Your task to perform on an android device: toggle notification dots Image 0: 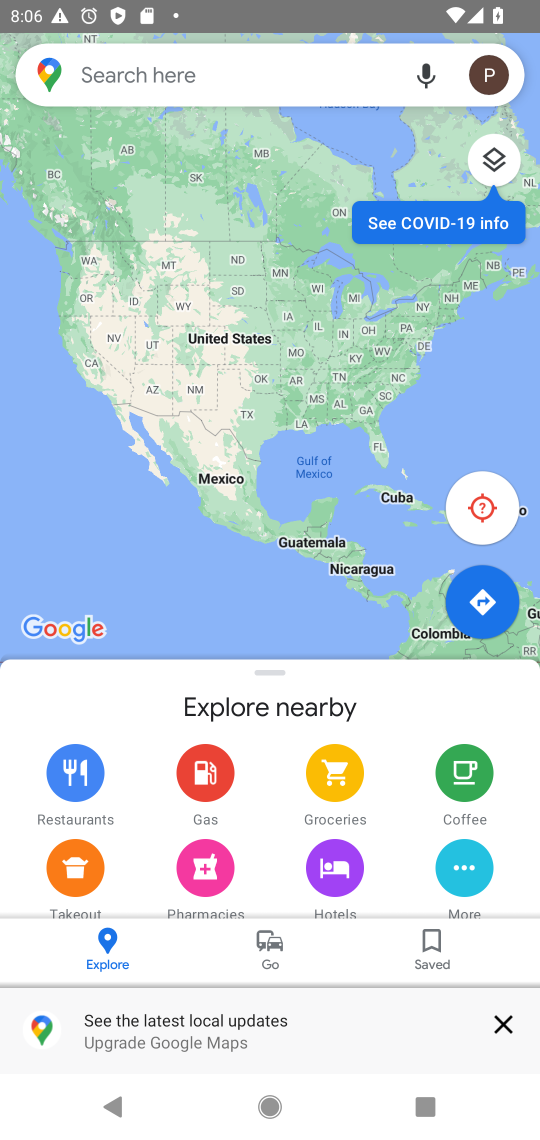
Step 0: press home button
Your task to perform on an android device: toggle notification dots Image 1: 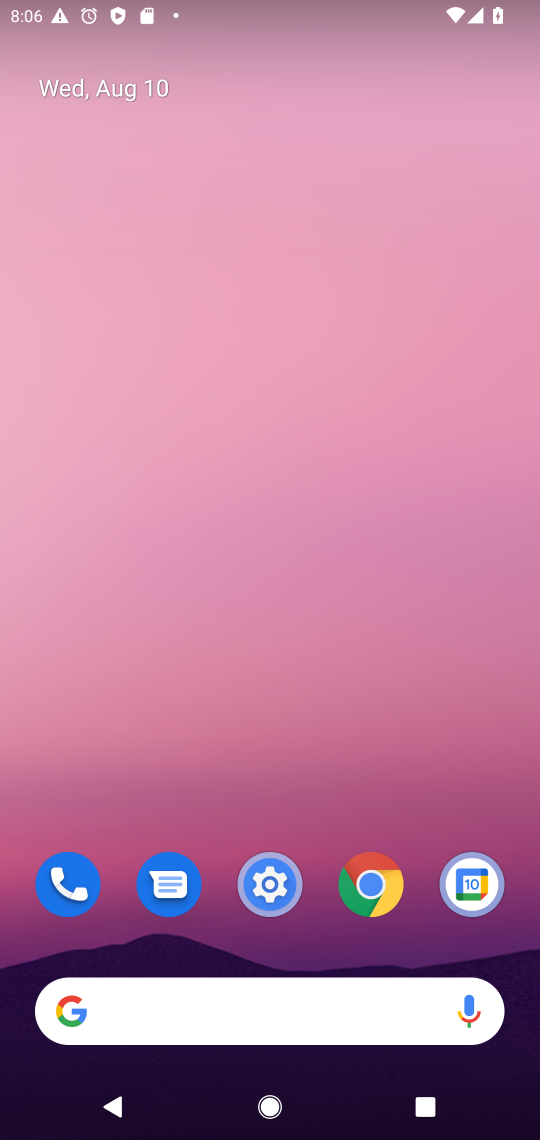
Step 1: click (256, 879)
Your task to perform on an android device: toggle notification dots Image 2: 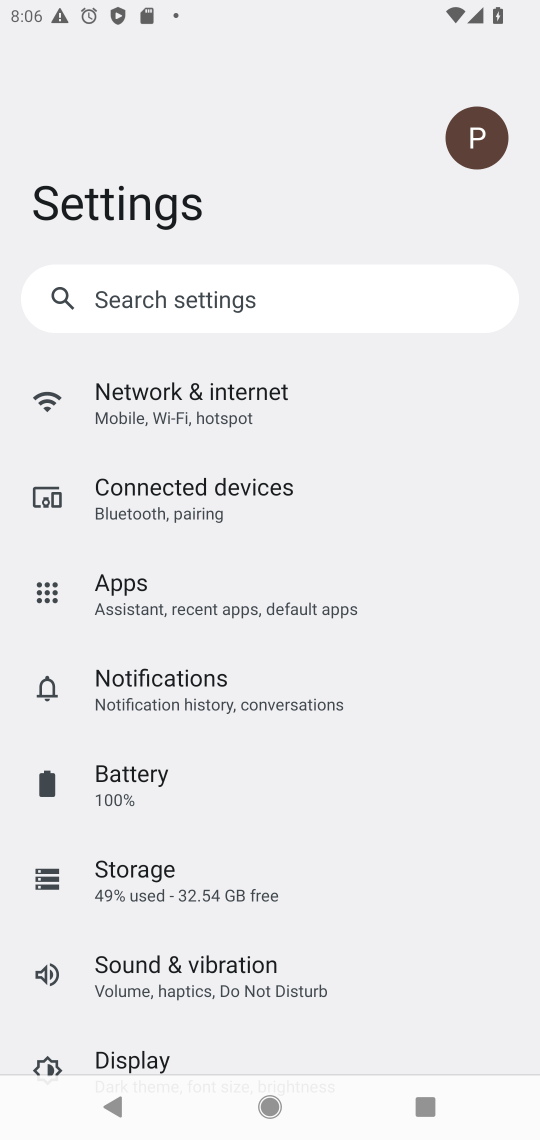
Step 2: click (141, 687)
Your task to perform on an android device: toggle notification dots Image 3: 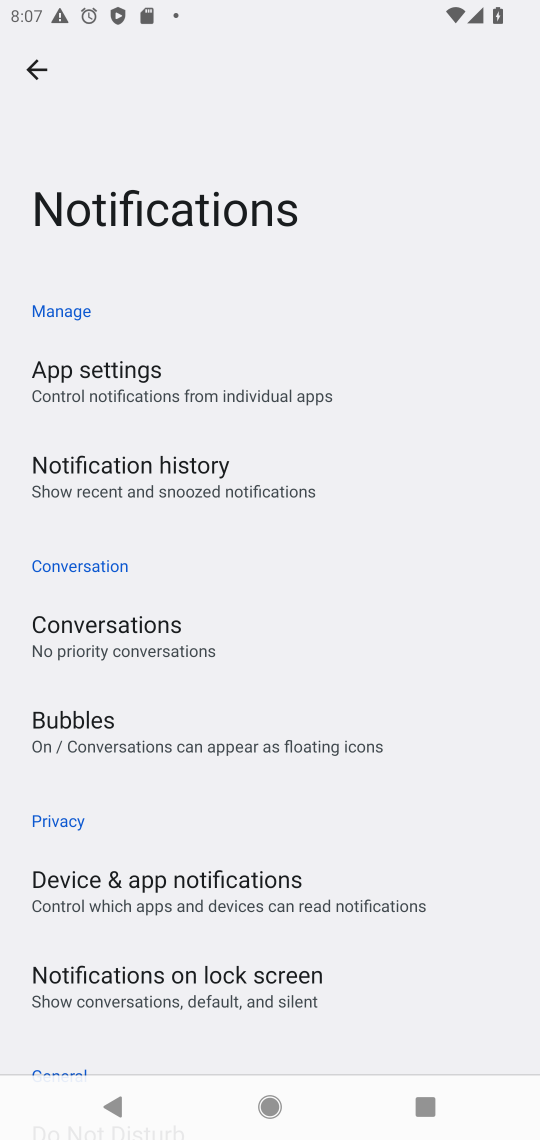
Step 3: task complete